Your task to perform on an android device: change the clock display to analog Image 0: 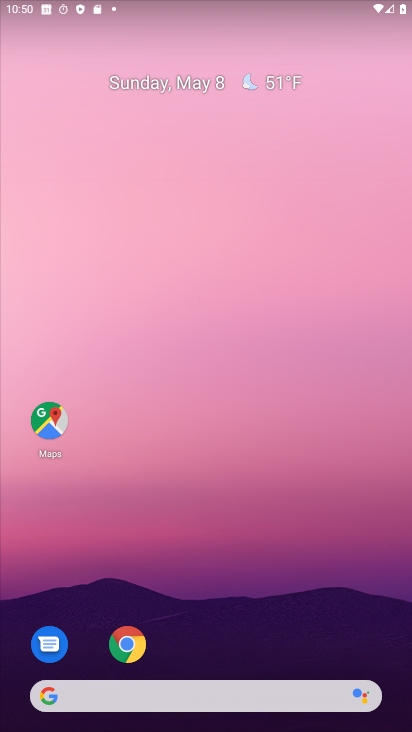
Step 0: drag from (200, 656) to (264, 213)
Your task to perform on an android device: change the clock display to analog Image 1: 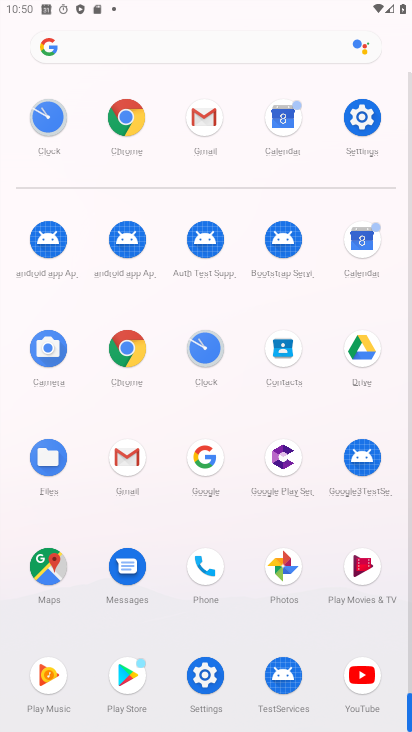
Step 1: click (213, 361)
Your task to perform on an android device: change the clock display to analog Image 2: 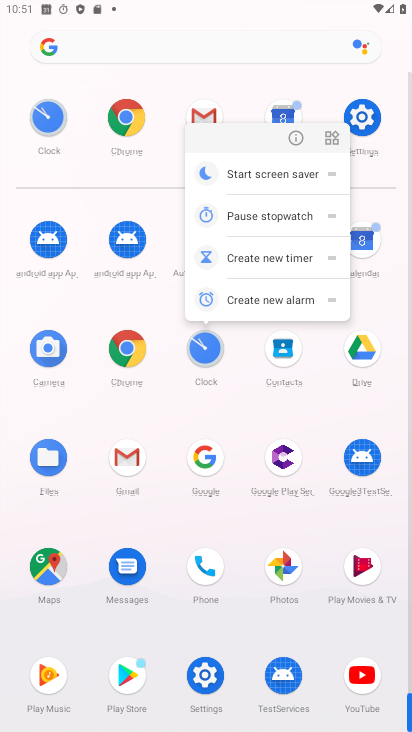
Step 2: click (302, 138)
Your task to perform on an android device: change the clock display to analog Image 3: 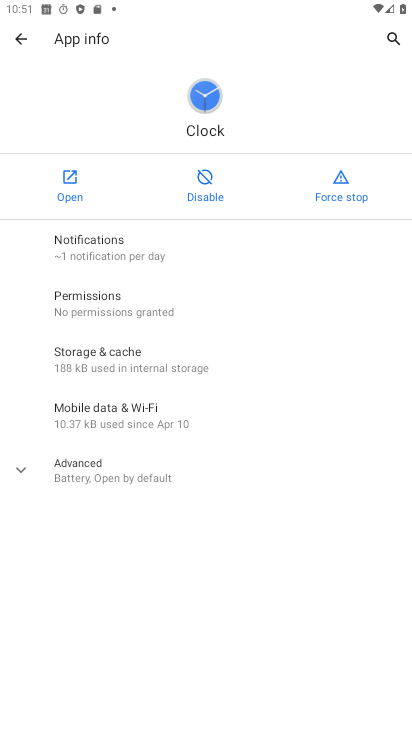
Step 3: click (77, 191)
Your task to perform on an android device: change the clock display to analog Image 4: 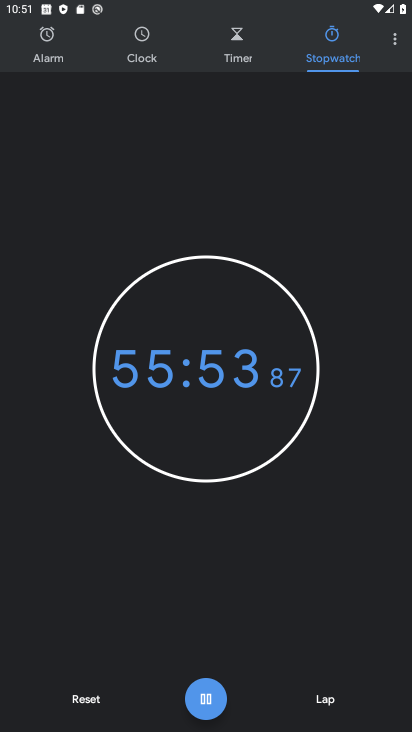
Step 4: click (389, 47)
Your task to perform on an android device: change the clock display to analog Image 5: 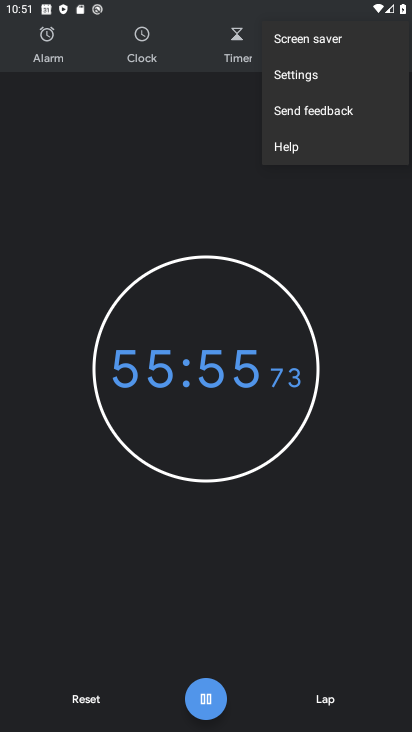
Step 5: click (303, 72)
Your task to perform on an android device: change the clock display to analog Image 6: 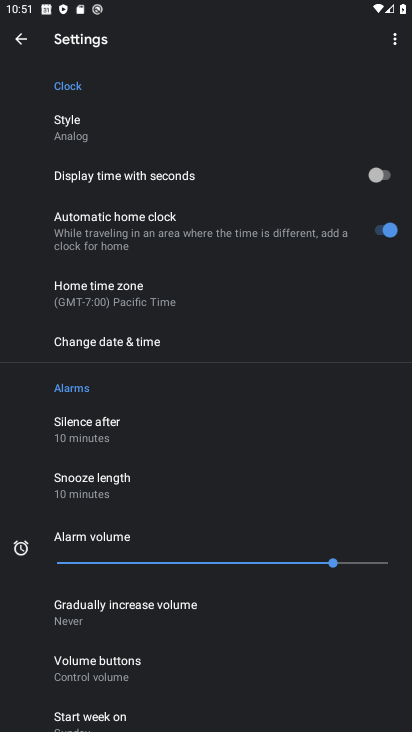
Step 6: click (100, 116)
Your task to perform on an android device: change the clock display to analog Image 7: 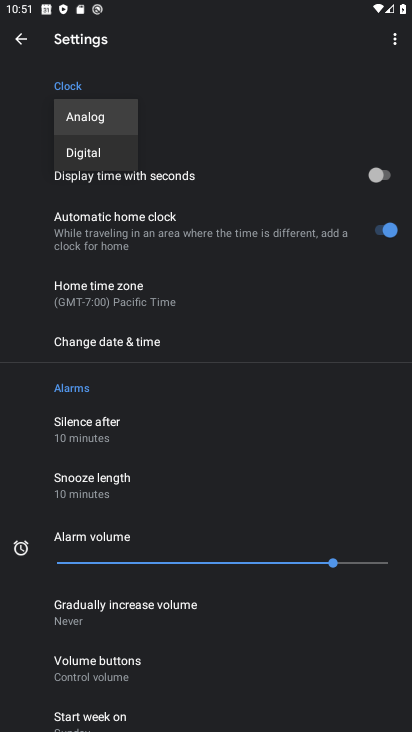
Step 7: task complete